Your task to perform on an android device: open app "Pluto TV - Live TV and Movies" Image 0: 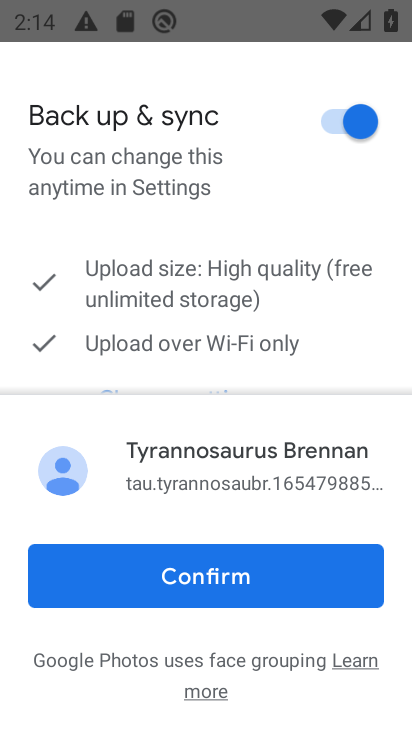
Step 0: press home button
Your task to perform on an android device: open app "Pluto TV - Live TV and Movies" Image 1: 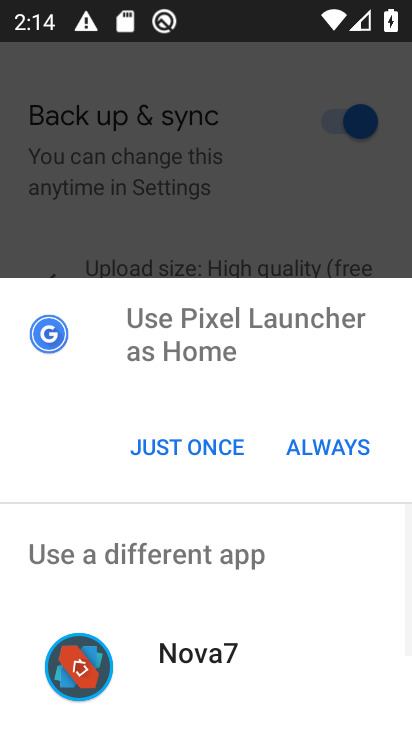
Step 1: click (205, 435)
Your task to perform on an android device: open app "Pluto TV - Live TV and Movies" Image 2: 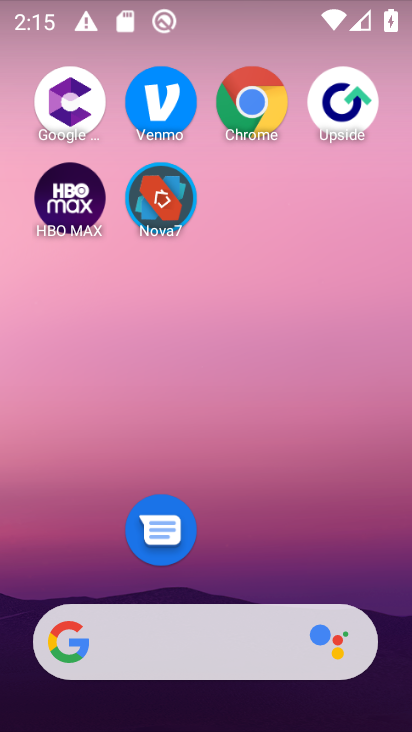
Step 2: drag from (346, 534) to (297, 84)
Your task to perform on an android device: open app "Pluto TV - Live TV and Movies" Image 3: 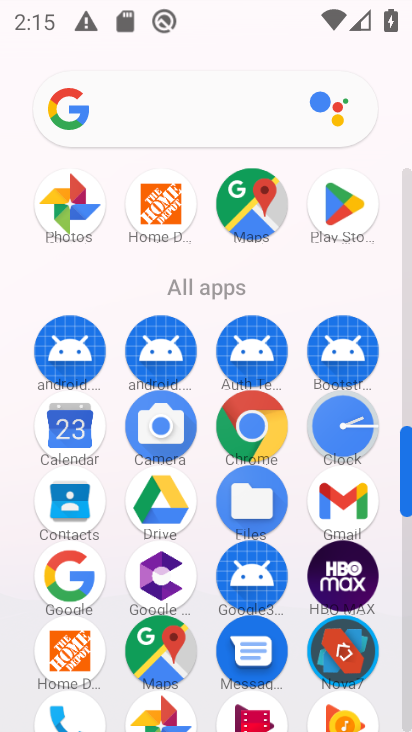
Step 3: click (355, 206)
Your task to perform on an android device: open app "Pluto TV - Live TV and Movies" Image 4: 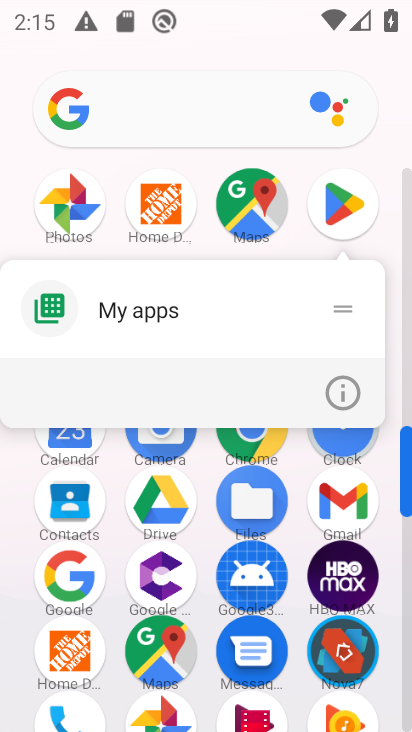
Step 4: click (355, 207)
Your task to perform on an android device: open app "Pluto TV - Live TV and Movies" Image 5: 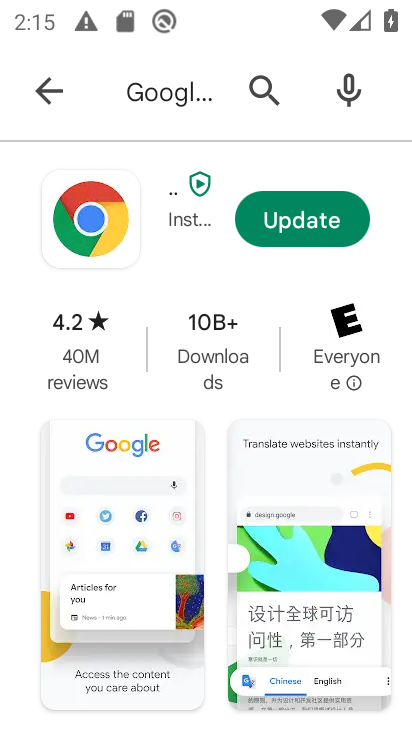
Step 5: press back button
Your task to perform on an android device: open app "Pluto TV - Live TV and Movies" Image 6: 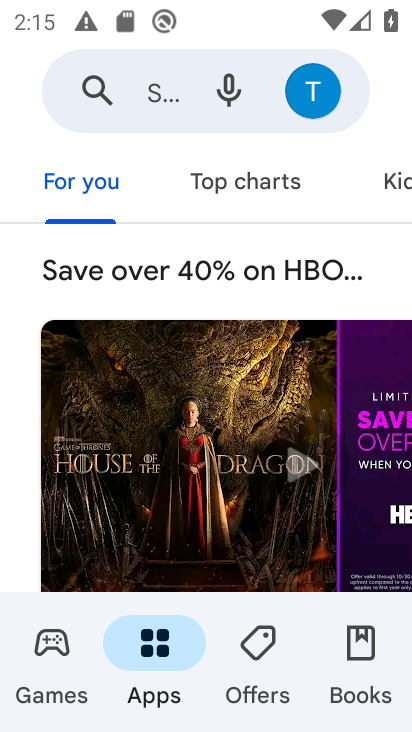
Step 6: click (163, 102)
Your task to perform on an android device: open app "Pluto TV - Live TV and Movies" Image 7: 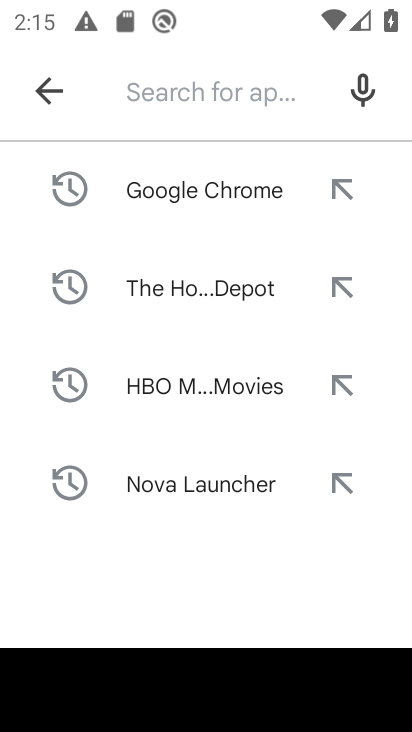
Step 7: type "Pluto TV - Live TV and Movies"
Your task to perform on an android device: open app "Pluto TV - Live TV and Movies" Image 8: 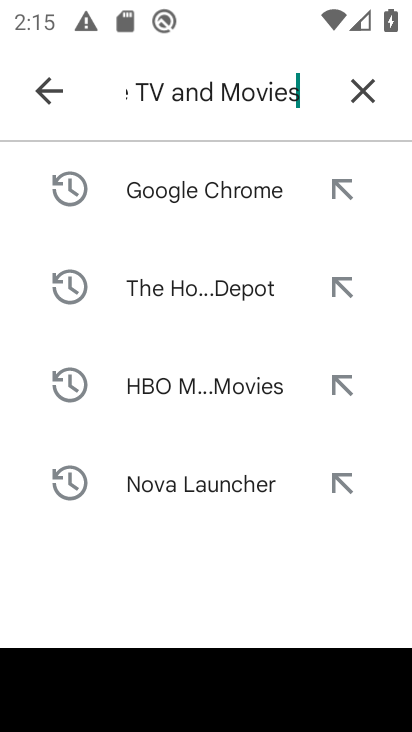
Step 8: press enter
Your task to perform on an android device: open app "Pluto TV - Live TV and Movies" Image 9: 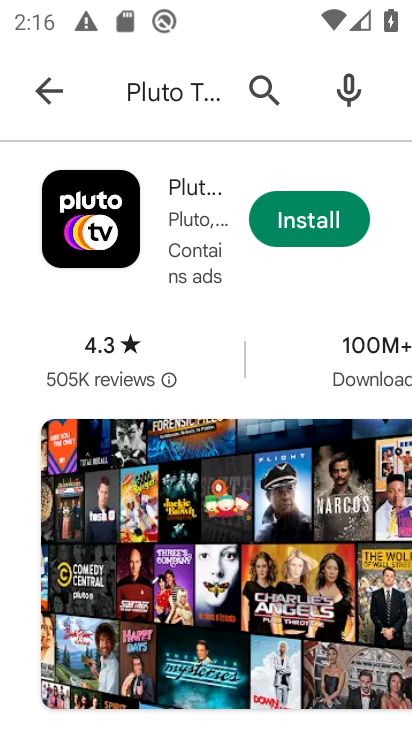
Step 9: task complete